Your task to perform on an android device: delete the emails in spam in the gmail app Image 0: 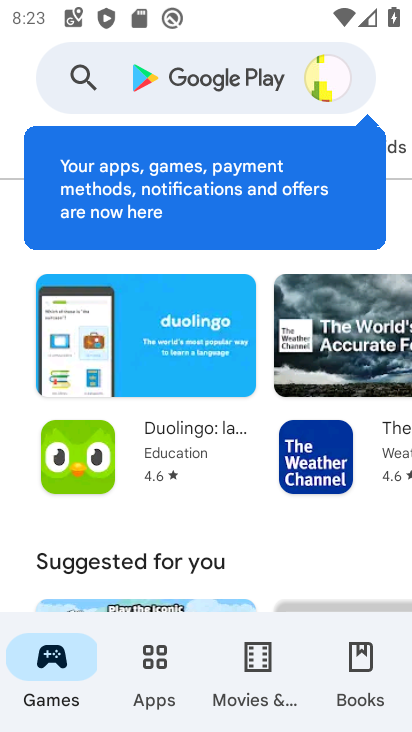
Step 0: press home button
Your task to perform on an android device: delete the emails in spam in the gmail app Image 1: 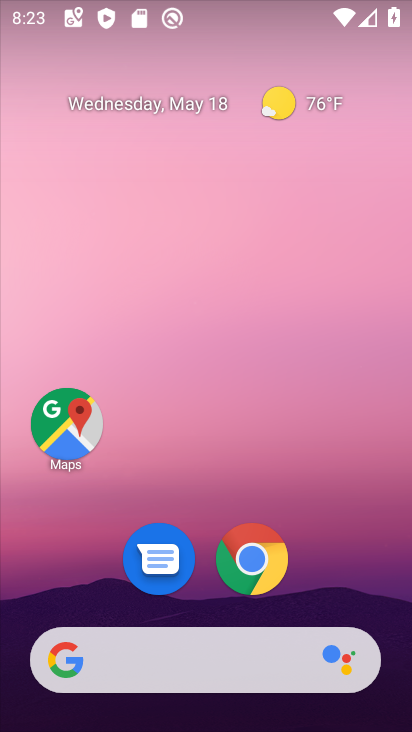
Step 1: drag from (193, 597) to (210, 54)
Your task to perform on an android device: delete the emails in spam in the gmail app Image 2: 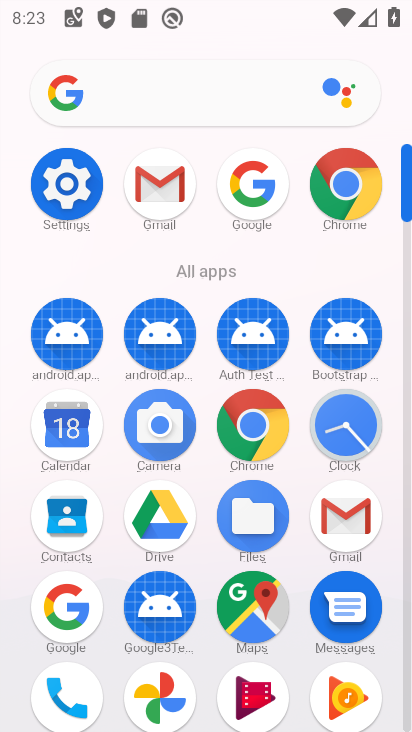
Step 2: click (167, 176)
Your task to perform on an android device: delete the emails in spam in the gmail app Image 3: 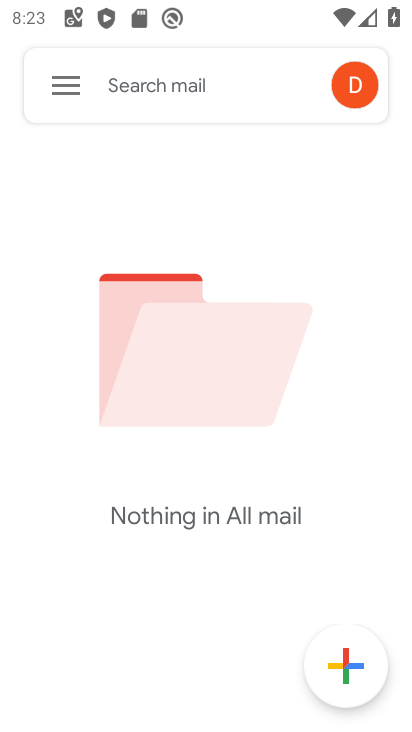
Step 3: click (73, 89)
Your task to perform on an android device: delete the emails in spam in the gmail app Image 4: 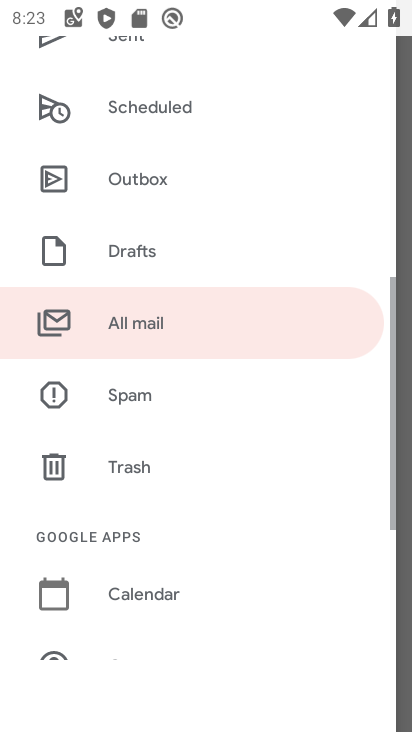
Step 4: click (149, 397)
Your task to perform on an android device: delete the emails in spam in the gmail app Image 5: 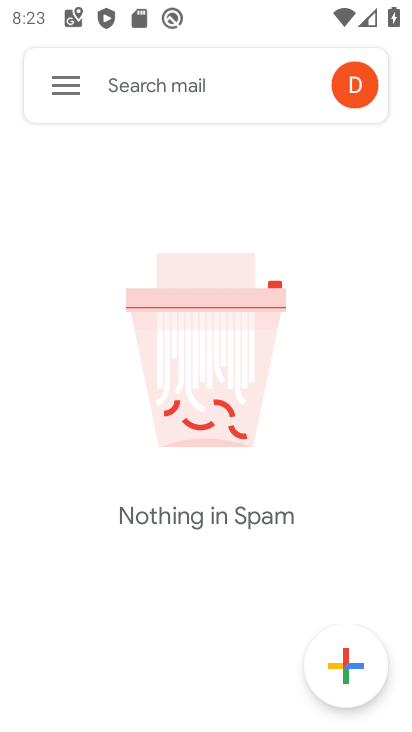
Step 5: task complete